Your task to perform on an android device: see creations saved in the google photos Image 0: 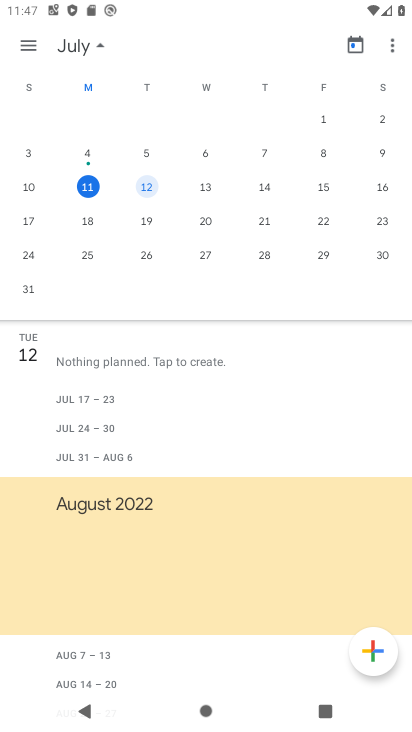
Step 0: press home button
Your task to perform on an android device: see creations saved in the google photos Image 1: 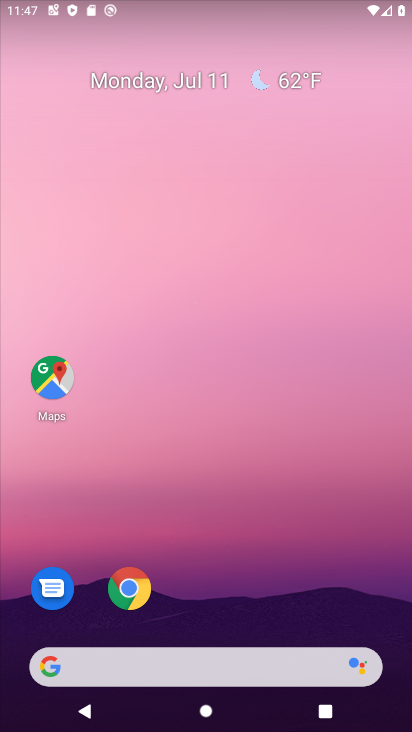
Step 1: drag from (251, 226) to (251, 191)
Your task to perform on an android device: see creations saved in the google photos Image 2: 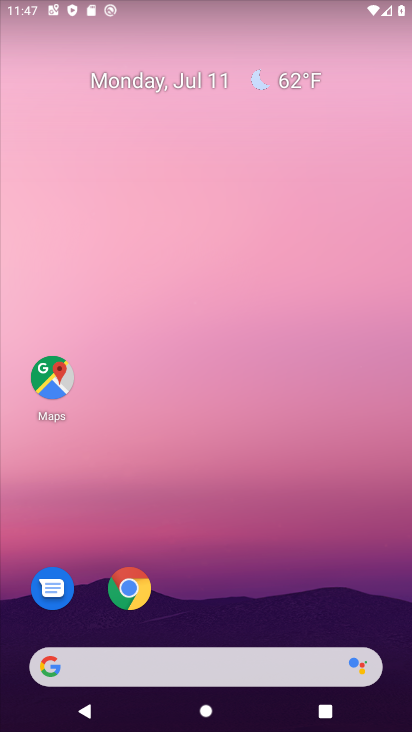
Step 2: drag from (200, 481) to (114, 58)
Your task to perform on an android device: see creations saved in the google photos Image 3: 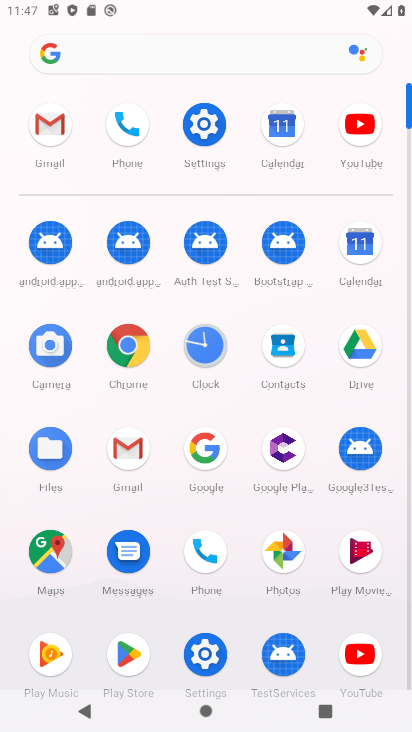
Step 3: click (282, 550)
Your task to perform on an android device: see creations saved in the google photos Image 4: 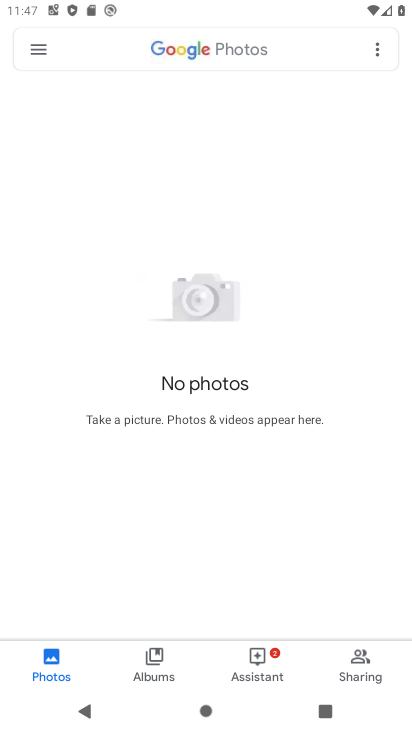
Step 4: click (232, 52)
Your task to perform on an android device: see creations saved in the google photos Image 5: 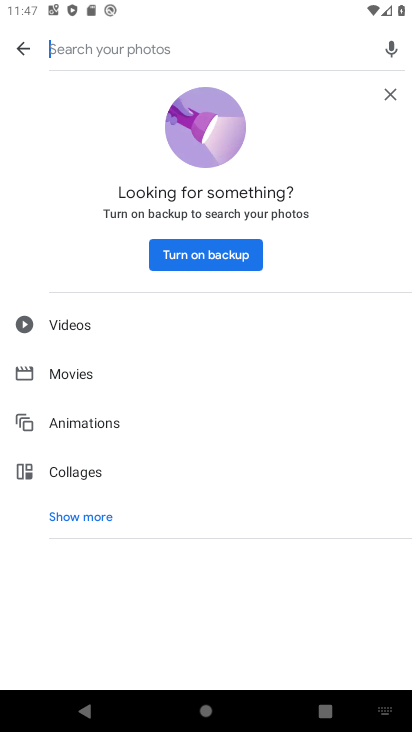
Step 5: click (102, 522)
Your task to perform on an android device: see creations saved in the google photos Image 6: 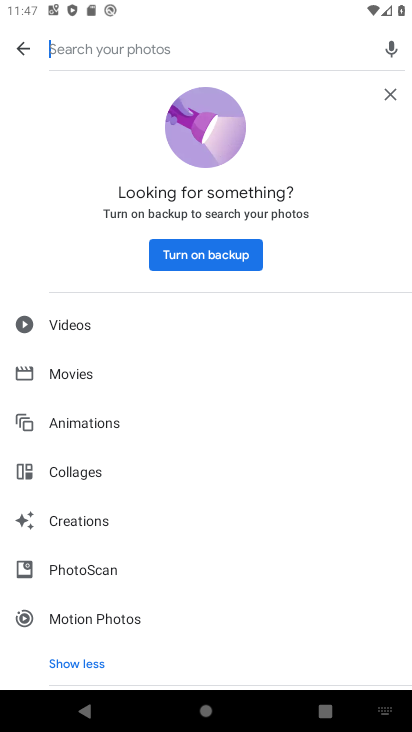
Step 6: click (67, 515)
Your task to perform on an android device: see creations saved in the google photos Image 7: 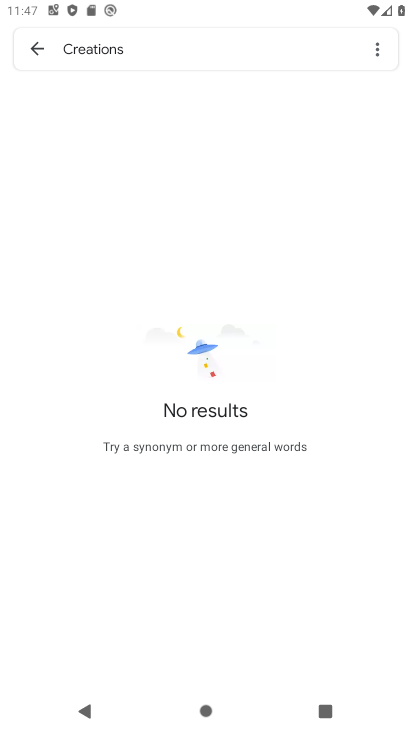
Step 7: task complete